Your task to perform on an android device: see tabs open on other devices in the chrome app Image 0: 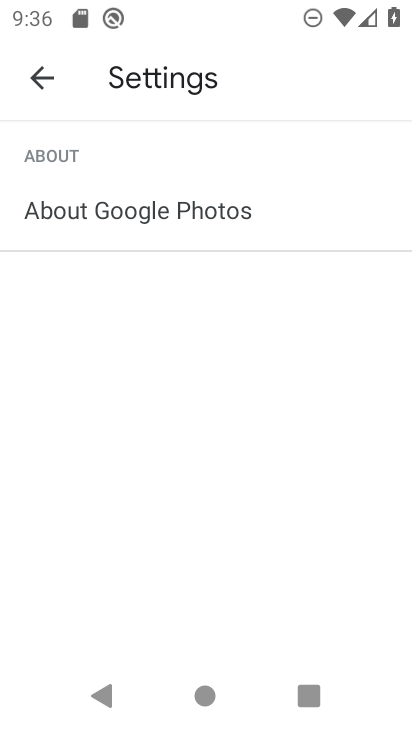
Step 0: press home button
Your task to perform on an android device: see tabs open on other devices in the chrome app Image 1: 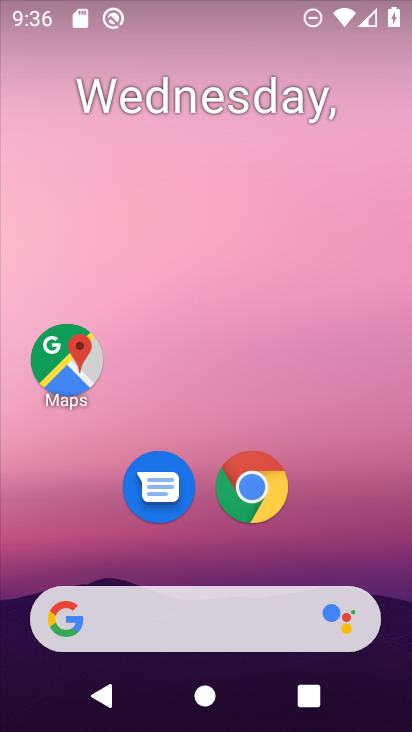
Step 1: drag from (277, 669) to (218, 218)
Your task to perform on an android device: see tabs open on other devices in the chrome app Image 2: 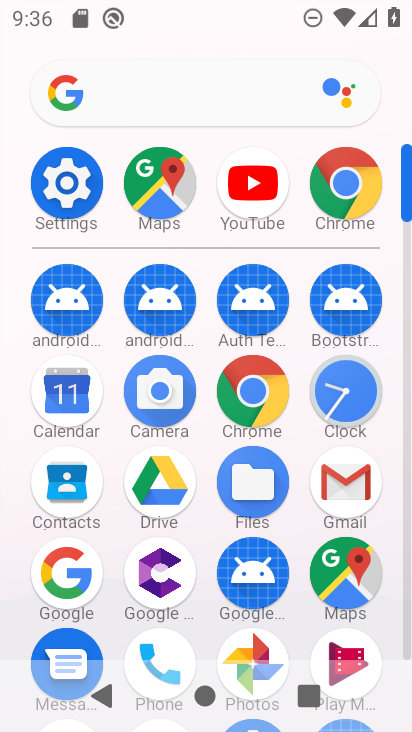
Step 2: click (326, 204)
Your task to perform on an android device: see tabs open on other devices in the chrome app Image 3: 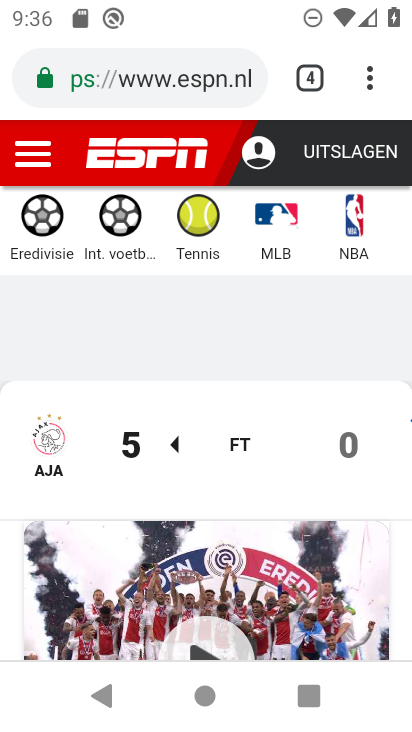
Step 3: click (296, 80)
Your task to perform on an android device: see tabs open on other devices in the chrome app Image 4: 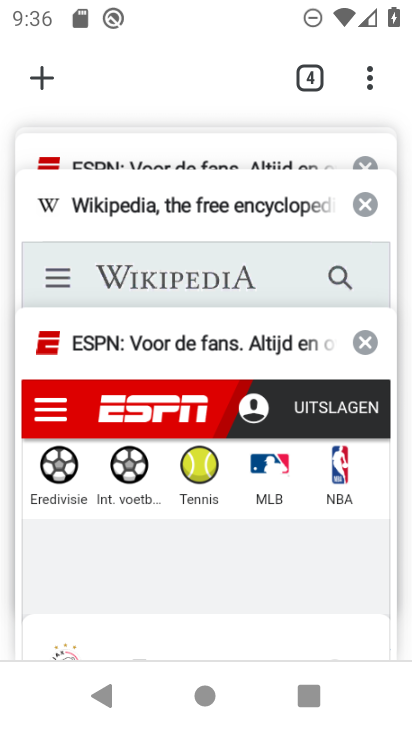
Step 4: click (38, 84)
Your task to perform on an android device: see tabs open on other devices in the chrome app Image 5: 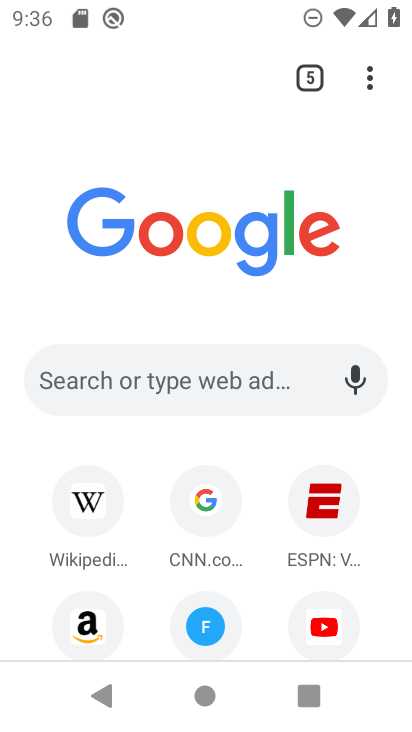
Step 5: task complete